Your task to perform on an android device: Open Google Image 0: 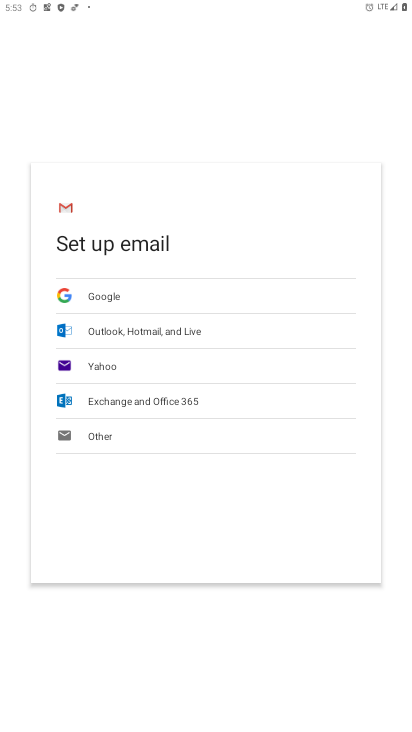
Step 0: press home button
Your task to perform on an android device: Open Google Image 1: 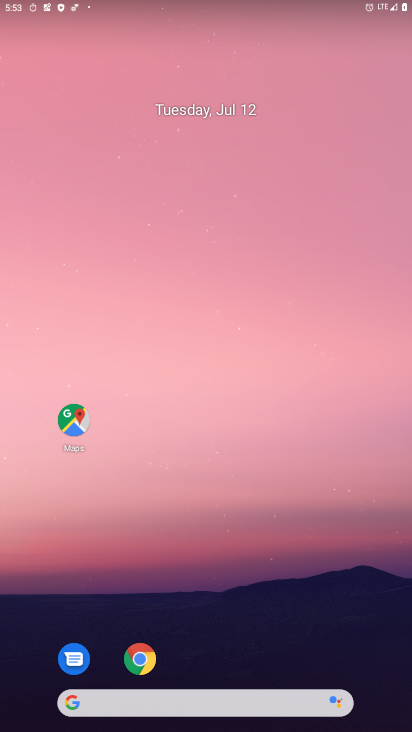
Step 1: click (63, 431)
Your task to perform on an android device: Open Google Image 2: 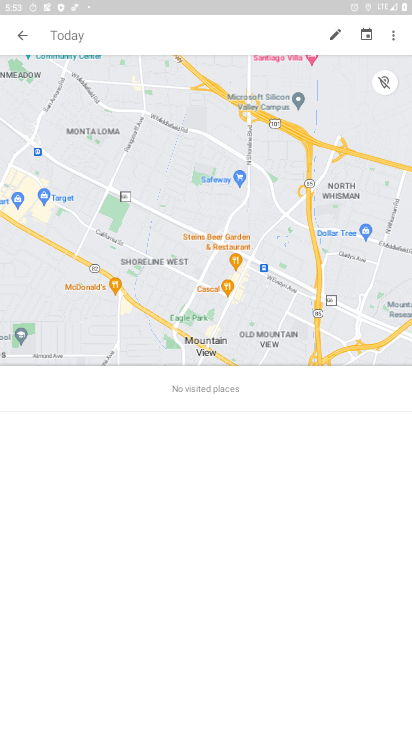
Step 2: press back button
Your task to perform on an android device: Open Google Image 3: 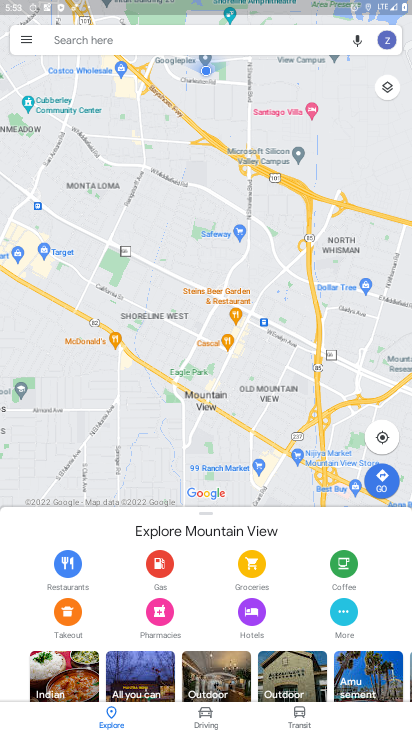
Step 3: press back button
Your task to perform on an android device: Open Google Image 4: 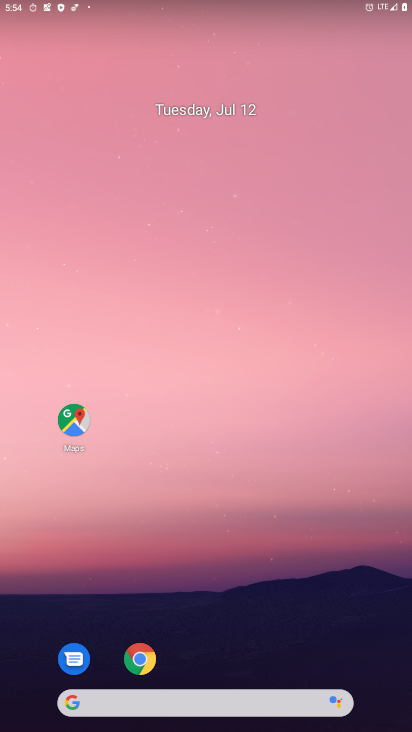
Step 4: click (181, 699)
Your task to perform on an android device: Open Google Image 5: 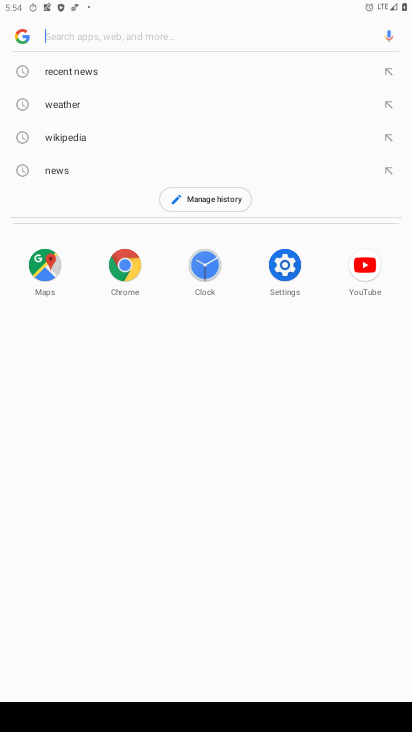
Step 5: task complete